Your task to perform on an android device: turn off data saver in the chrome app Image 0: 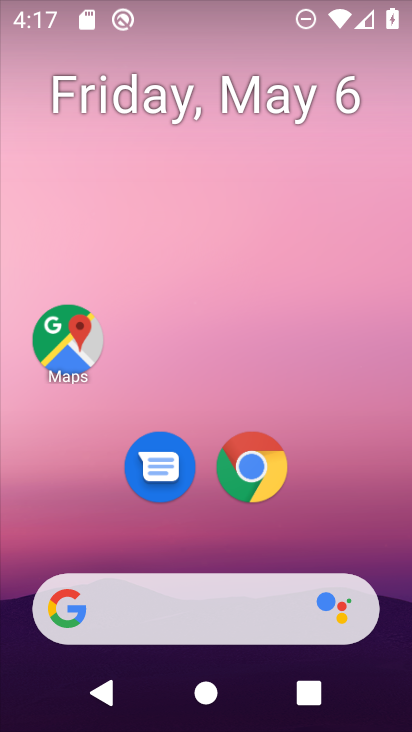
Step 0: click (266, 479)
Your task to perform on an android device: turn off data saver in the chrome app Image 1: 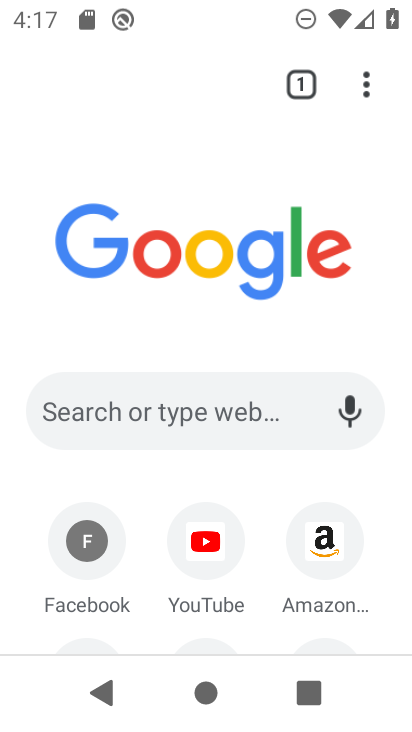
Step 1: click (371, 90)
Your task to perform on an android device: turn off data saver in the chrome app Image 2: 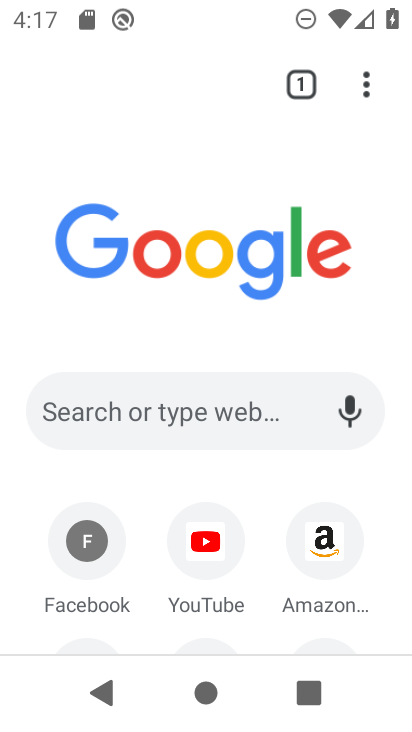
Step 2: click (368, 90)
Your task to perform on an android device: turn off data saver in the chrome app Image 3: 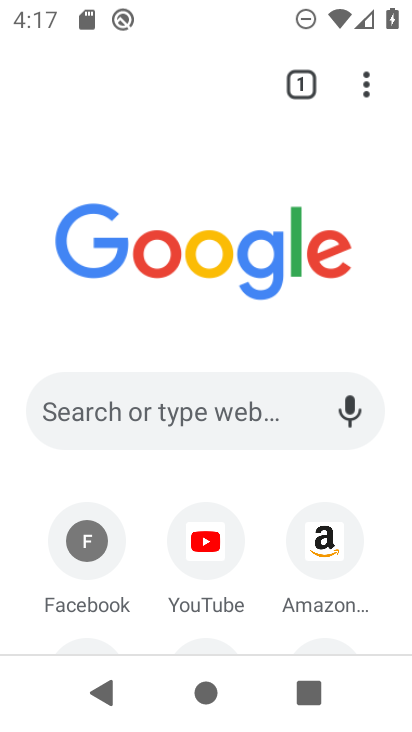
Step 3: click (354, 87)
Your task to perform on an android device: turn off data saver in the chrome app Image 4: 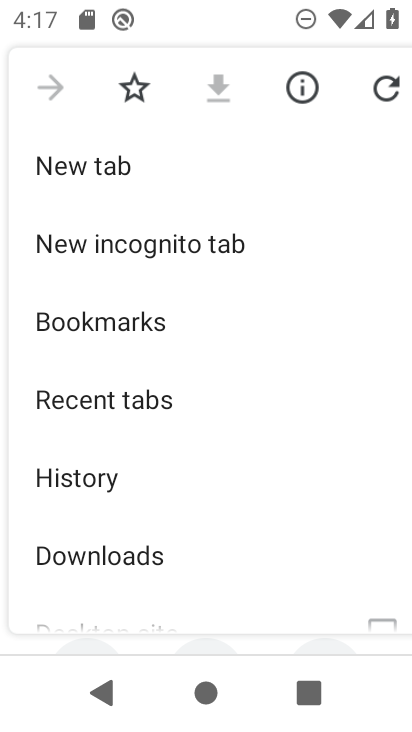
Step 4: drag from (135, 520) to (189, 131)
Your task to perform on an android device: turn off data saver in the chrome app Image 5: 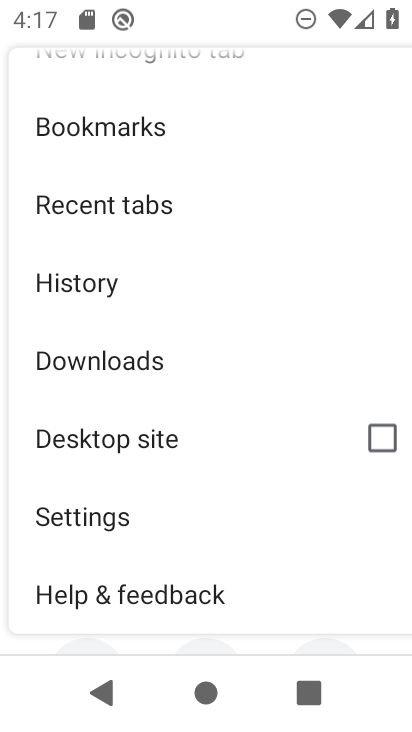
Step 5: click (100, 519)
Your task to perform on an android device: turn off data saver in the chrome app Image 6: 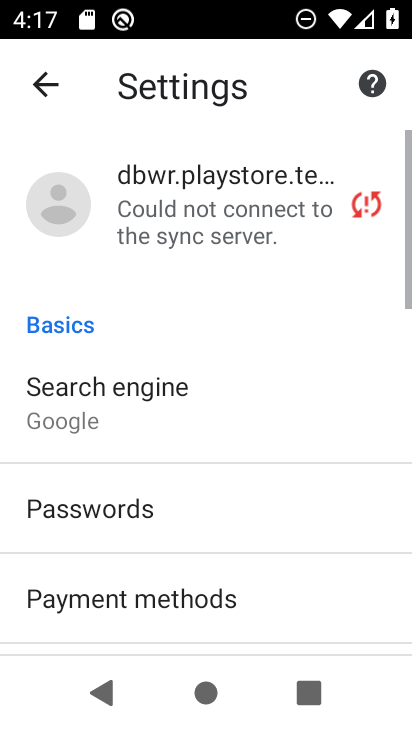
Step 6: drag from (193, 600) to (186, 203)
Your task to perform on an android device: turn off data saver in the chrome app Image 7: 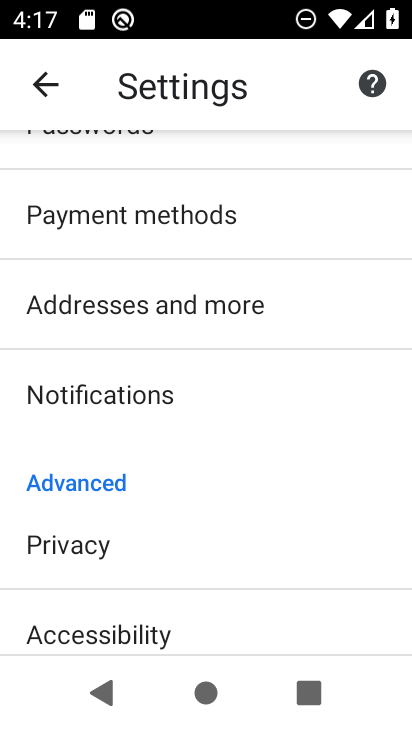
Step 7: drag from (182, 627) to (202, 161)
Your task to perform on an android device: turn off data saver in the chrome app Image 8: 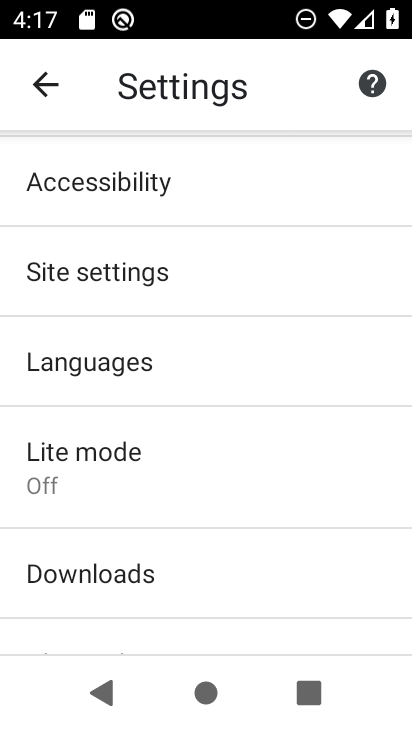
Step 8: drag from (192, 595) to (200, 322)
Your task to perform on an android device: turn off data saver in the chrome app Image 9: 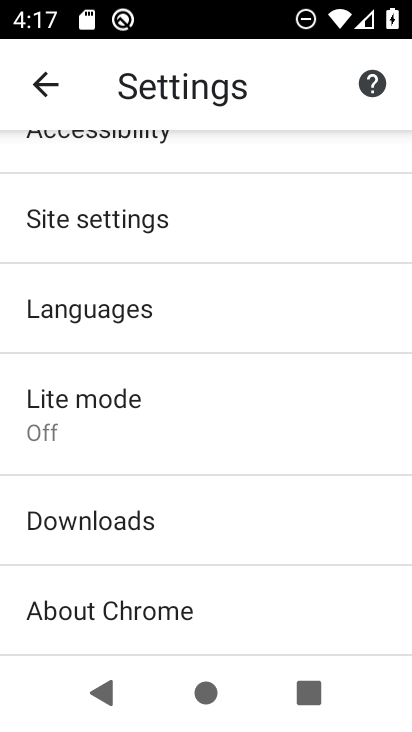
Step 9: click (79, 431)
Your task to perform on an android device: turn off data saver in the chrome app Image 10: 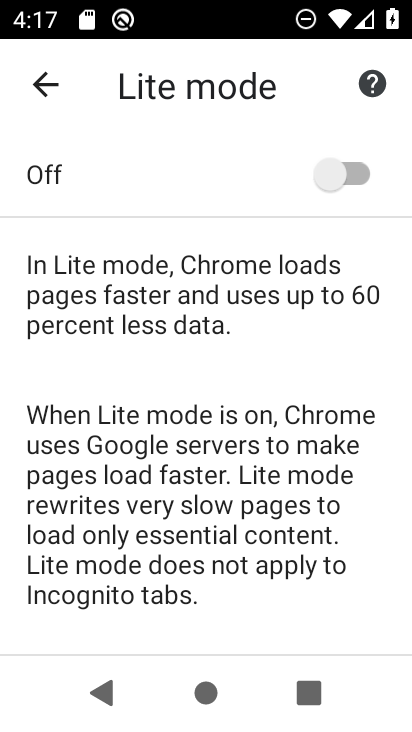
Step 10: task complete